Your task to perform on an android device: turn on priority inbox in the gmail app Image 0: 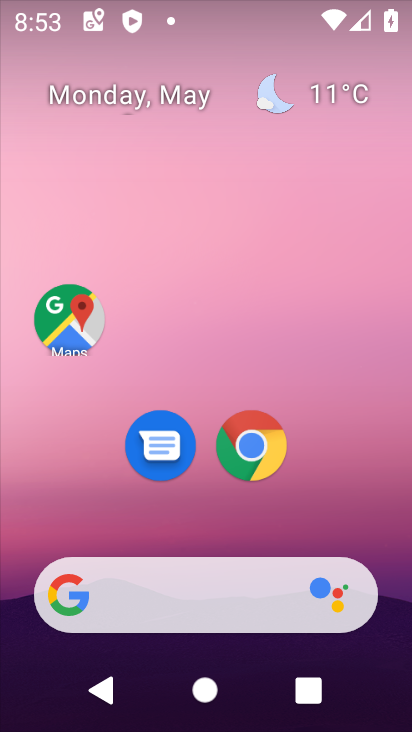
Step 0: drag from (243, 625) to (318, 73)
Your task to perform on an android device: turn on priority inbox in the gmail app Image 1: 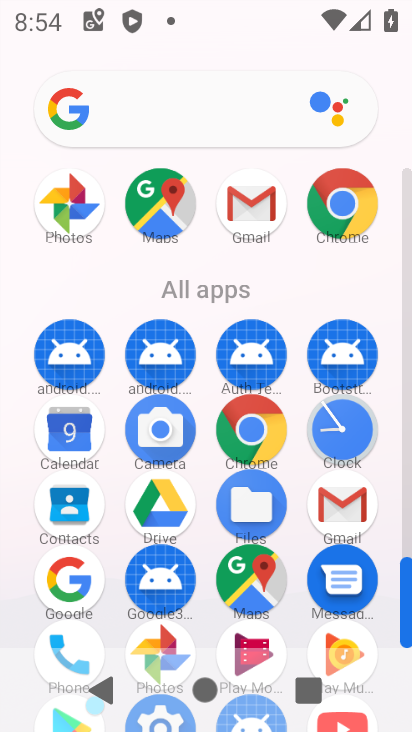
Step 1: click (251, 235)
Your task to perform on an android device: turn on priority inbox in the gmail app Image 2: 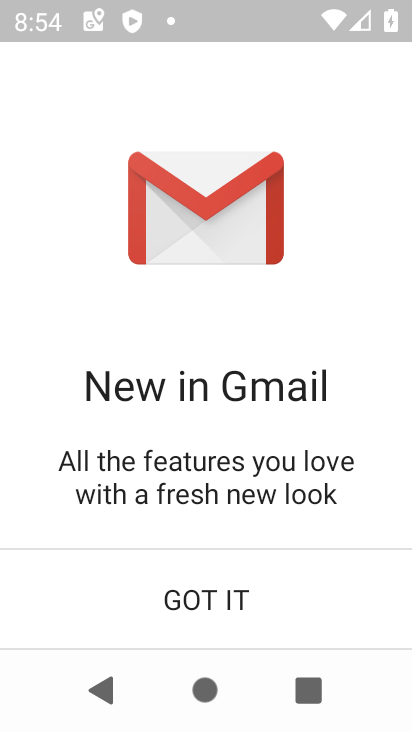
Step 2: click (184, 614)
Your task to perform on an android device: turn on priority inbox in the gmail app Image 3: 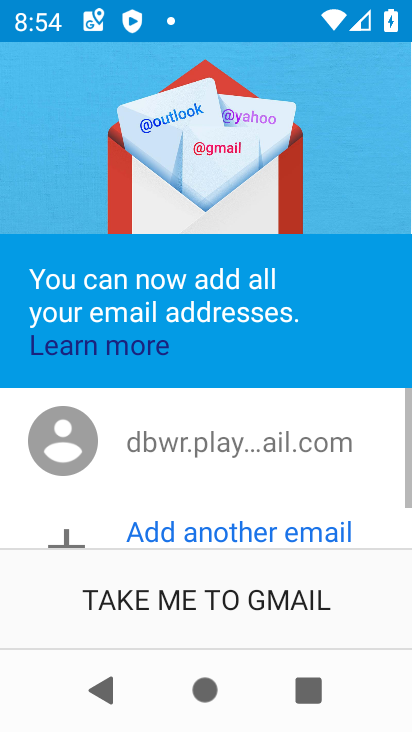
Step 3: click (198, 607)
Your task to perform on an android device: turn on priority inbox in the gmail app Image 4: 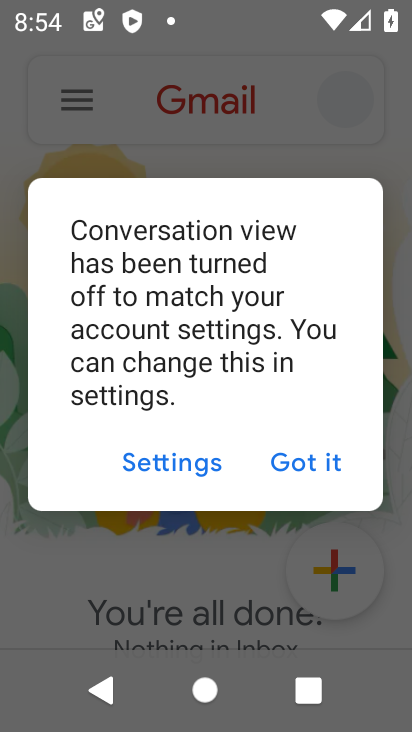
Step 4: click (282, 461)
Your task to perform on an android device: turn on priority inbox in the gmail app Image 5: 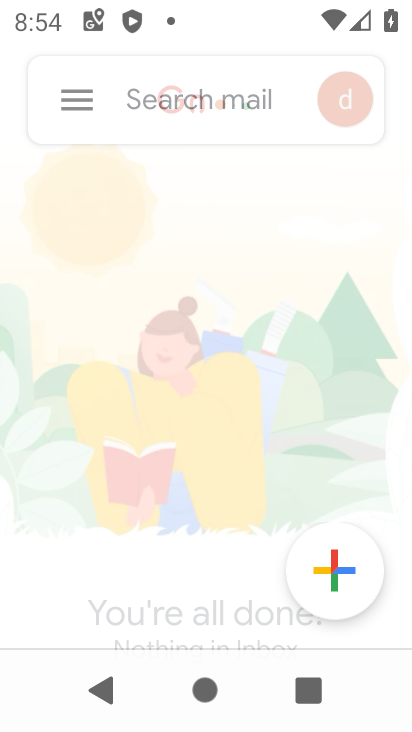
Step 5: click (82, 90)
Your task to perform on an android device: turn on priority inbox in the gmail app Image 6: 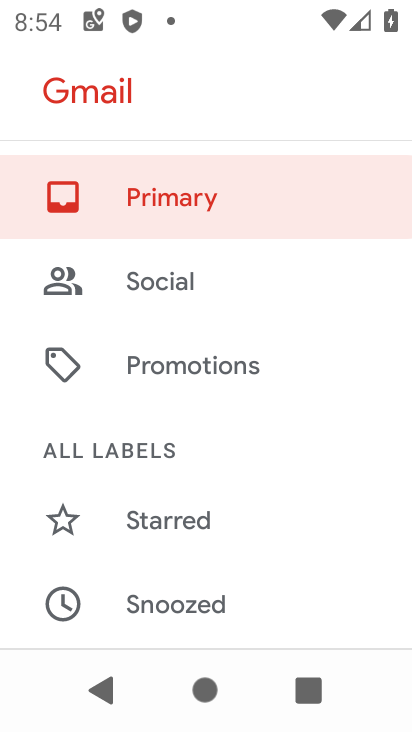
Step 6: drag from (134, 566) to (256, 110)
Your task to perform on an android device: turn on priority inbox in the gmail app Image 7: 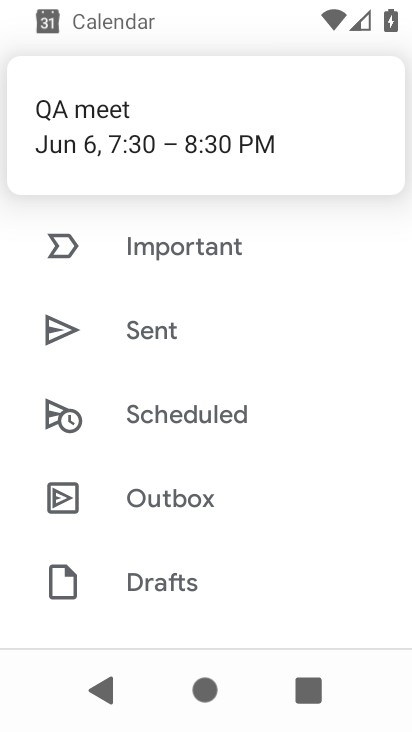
Step 7: drag from (222, 575) to (252, 94)
Your task to perform on an android device: turn on priority inbox in the gmail app Image 8: 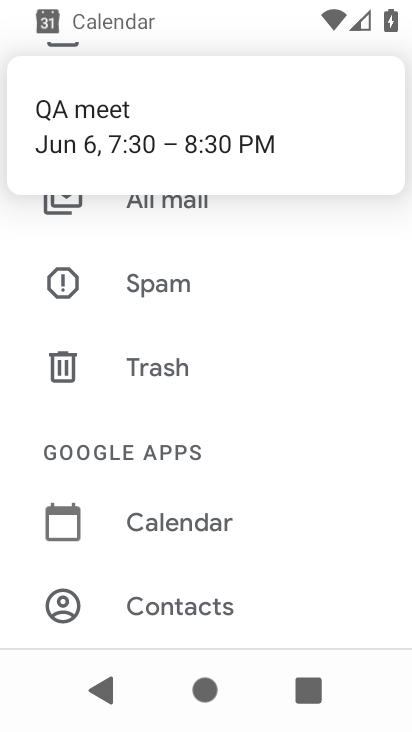
Step 8: drag from (176, 603) to (238, 352)
Your task to perform on an android device: turn on priority inbox in the gmail app Image 9: 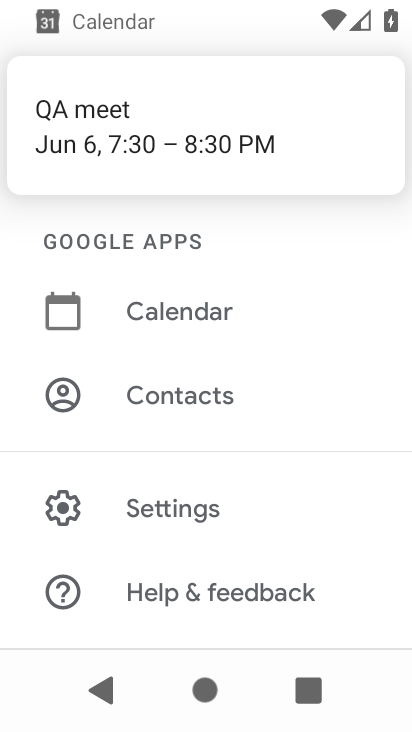
Step 9: click (192, 515)
Your task to perform on an android device: turn on priority inbox in the gmail app Image 10: 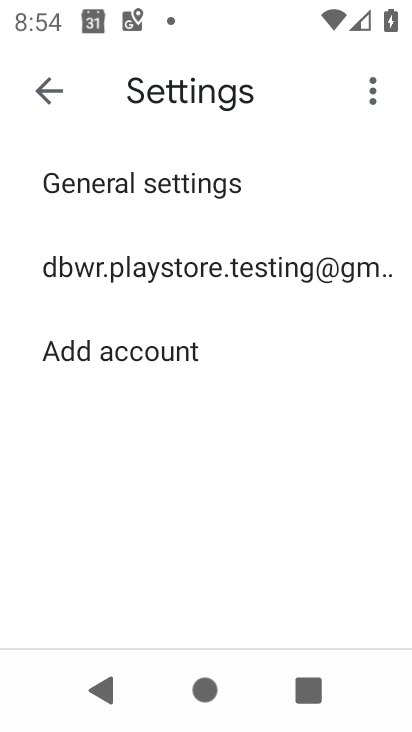
Step 10: click (170, 266)
Your task to perform on an android device: turn on priority inbox in the gmail app Image 11: 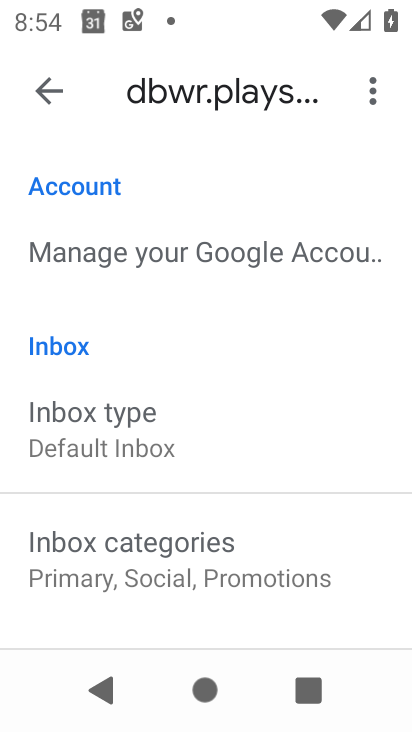
Step 11: click (136, 426)
Your task to perform on an android device: turn on priority inbox in the gmail app Image 12: 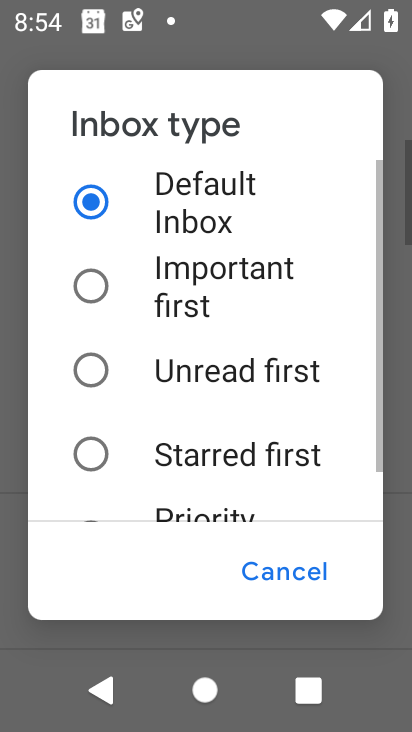
Step 12: drag from (218, 461) to (224, 281)
Your task to perform on an android device: turn on priority inbox in the gmail app Image 13: 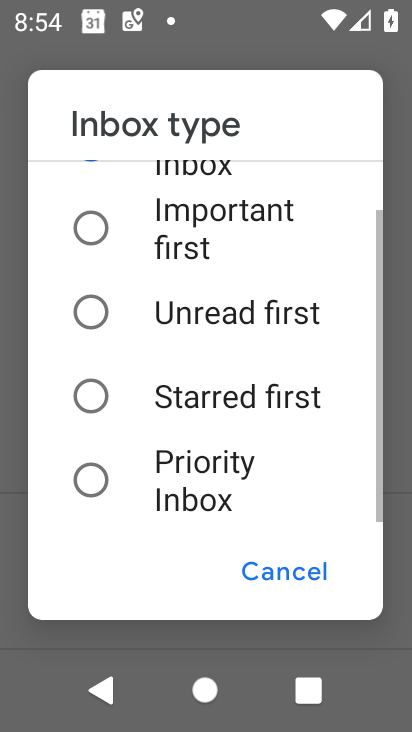
Step 13: click (196, 470)
Your task to perform on an android device: turn on priority inbox in the gmail app Image 14: 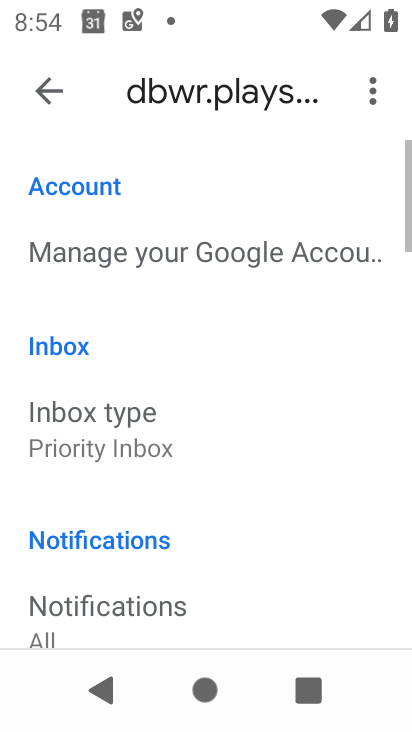
Step 14: task complete